Your task to perform on an android device: Go to wifi settings Image 0: 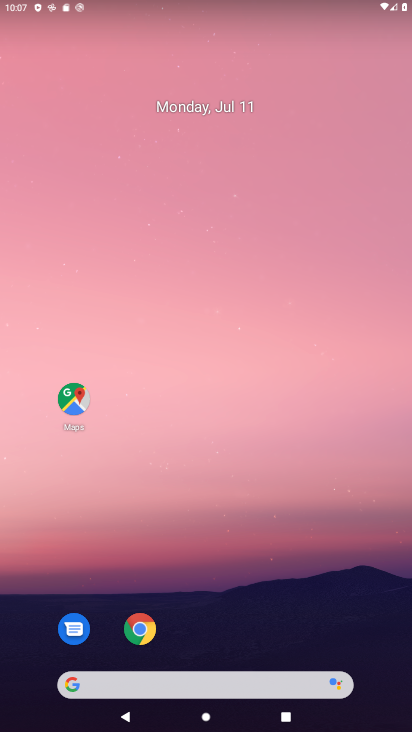
Step 0: drag from (302, 639) to (276, 137)
Your task to perform on an android device: Go to wifi settings Image 1: 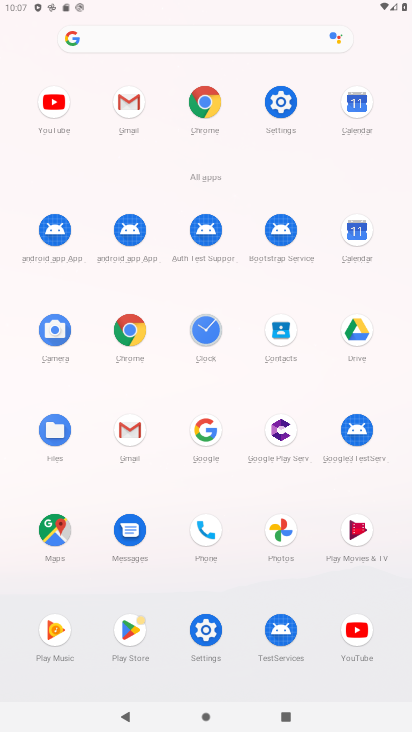
Step 1: click (286, 115)
Your task to perform on an android device: Go to wifi settings Image 2: 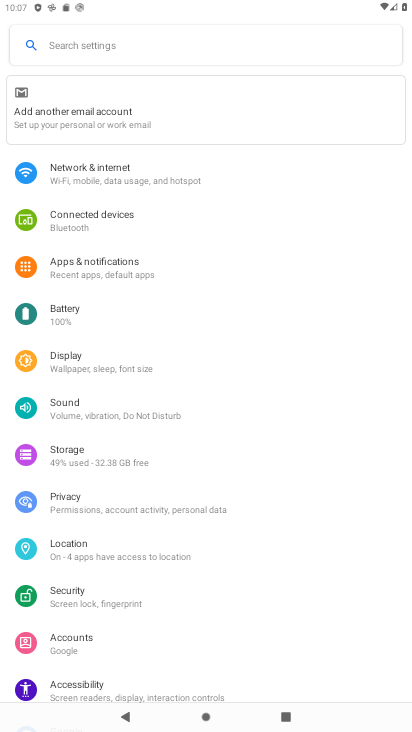
Step 2: click (241, 160)
Your task to perform on an android device: Go to wifi settings Image 3: 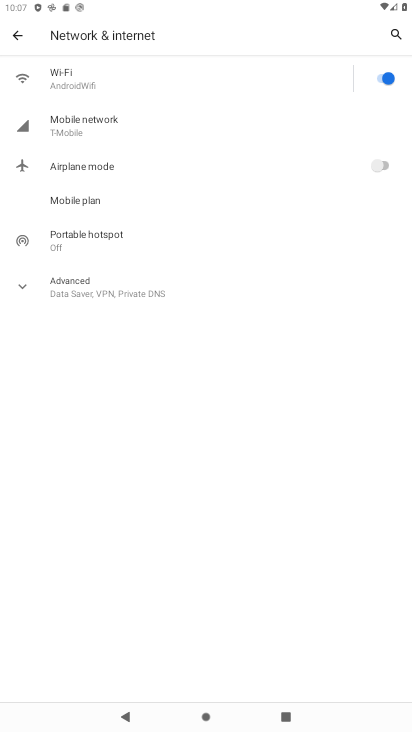
Step 3: click (175, 100)
Your task to perform on an android device: Go to wifi settings Image 4: 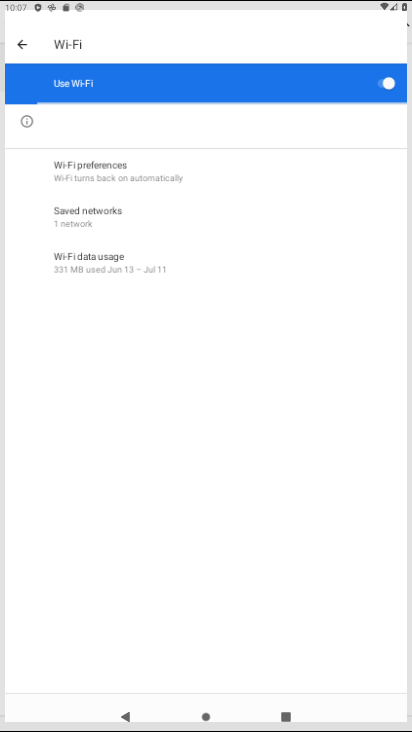
Step 4: task complete